Your task to perform on an android device: Go to CNN.com Image 0: 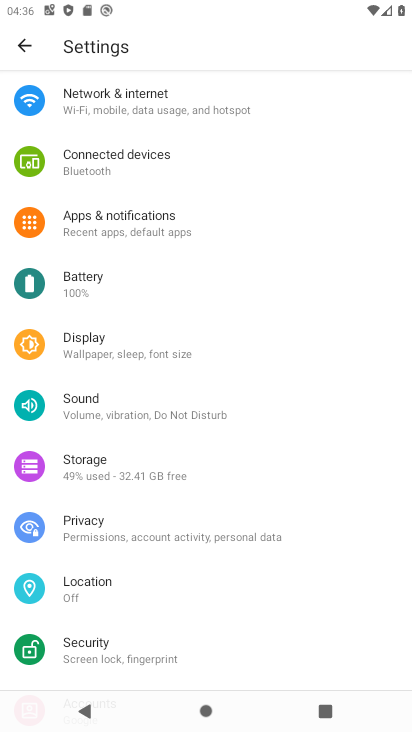
Step 0: press home button
Your task to perform on an android device: Go to CNN.com Image 1: 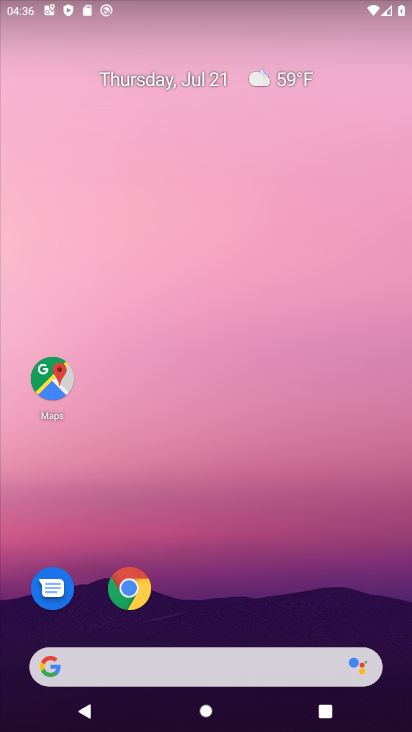
Step 1: click (120, 595)
Your task to perform on an android device: Go to CNN.com Image 2: 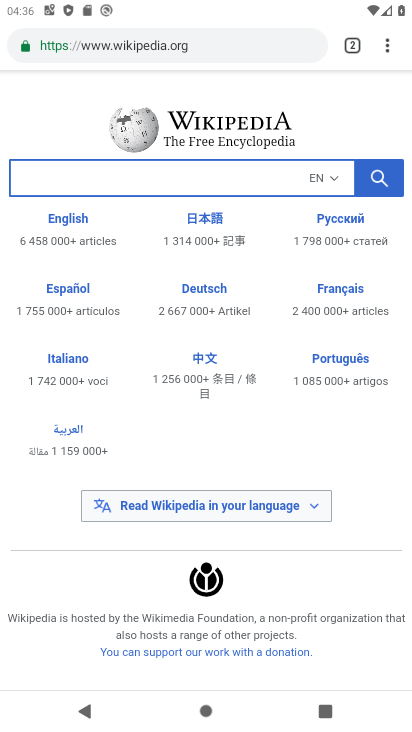
Step 2: click (212, 35)
Your task to perform on an android device: Go to CNN.com Image 3: 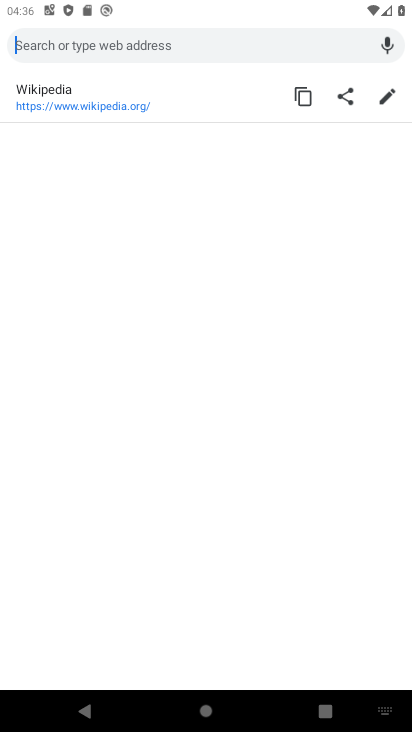
Step 3: type "CNN.com"
Your task to perform on an android device: Go to CNN.com Image 4: 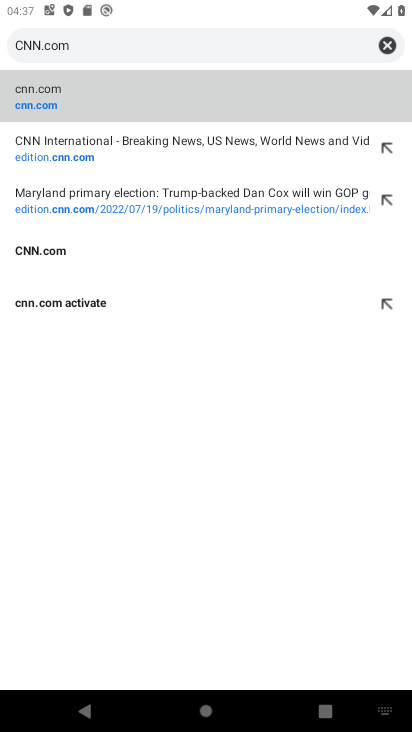
Step 4: click (108, 145)
Your task to perform on an android device: Go to CNN.com Image 5: 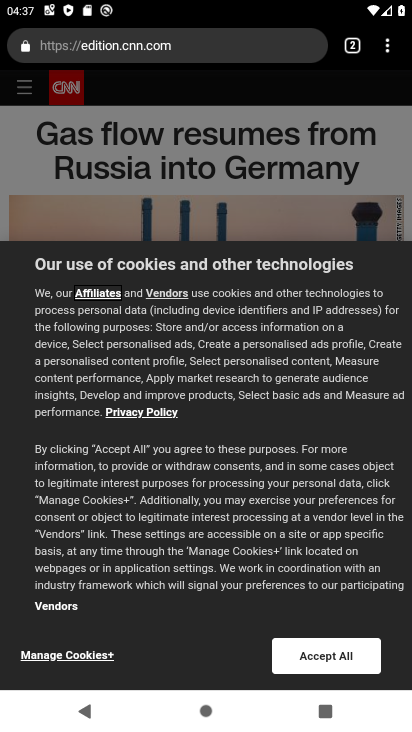
Step 5: task complete